Your task to perform on an android device: turn on data saver in the chrome app Image 0: 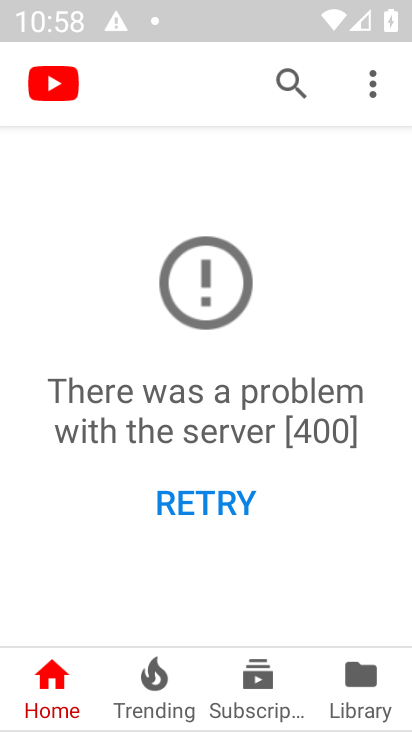
Step 0: press home button
Your task to perform on an android device: turn on data saver in the chrome app Image 1: 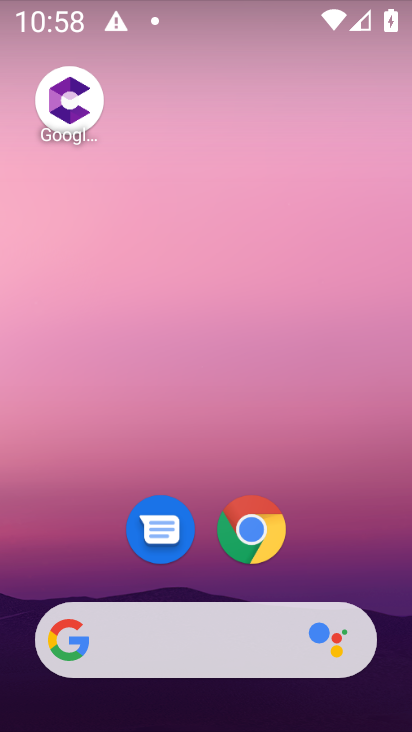
Step 1: drag from (386, 620) to (293, 102)
Your task to perform on an android device: turn on data saver in the chrome app Image 2: 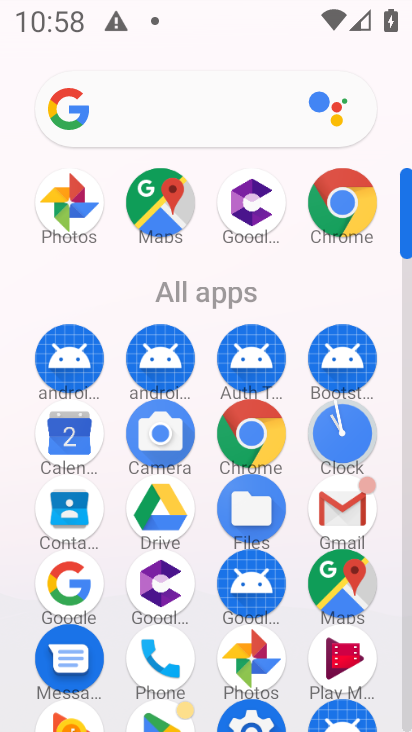
Step 2: click (357, 188)
Your task to perform on an android device: turn on data saver in the chrome app Image 3: 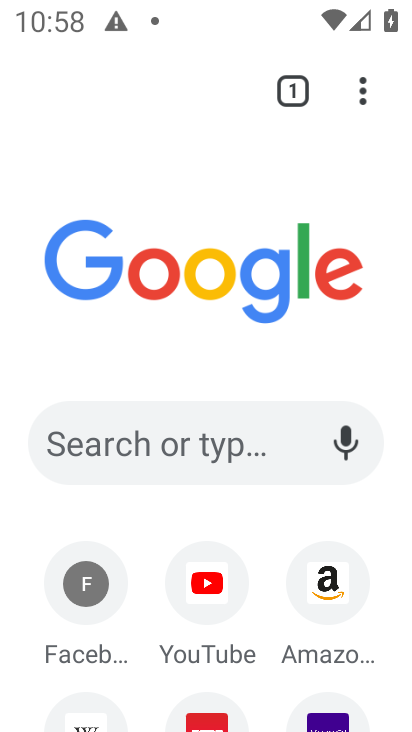
Step 3: click (359, 88)
Your task to perform on an android device: turn on data saver in the chrome app Image 4: 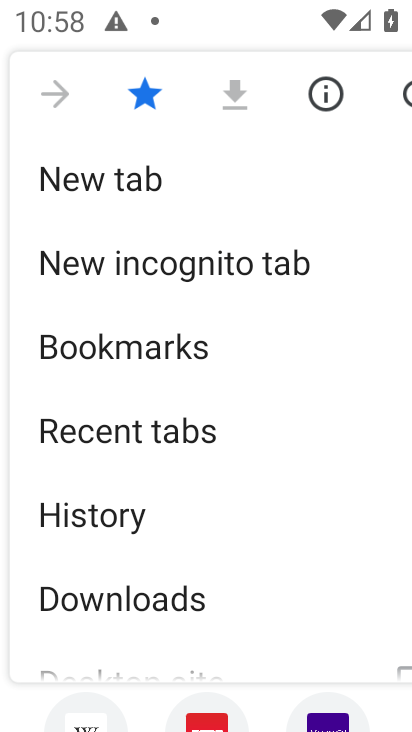
Step 4: drag from (187, 629) to (197, 176)
Your task to perform on an android device: turn on data saver in the chrome app Image 5: 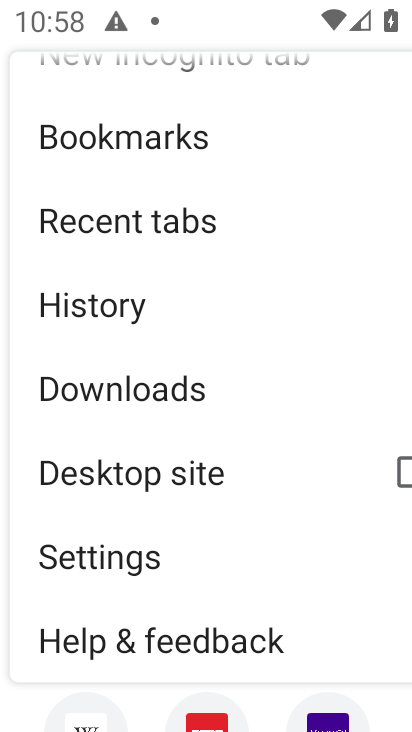
Step 5: click (176, 558)
Your task to perform on an android device: turn on data saver in the chrome app Image 6: 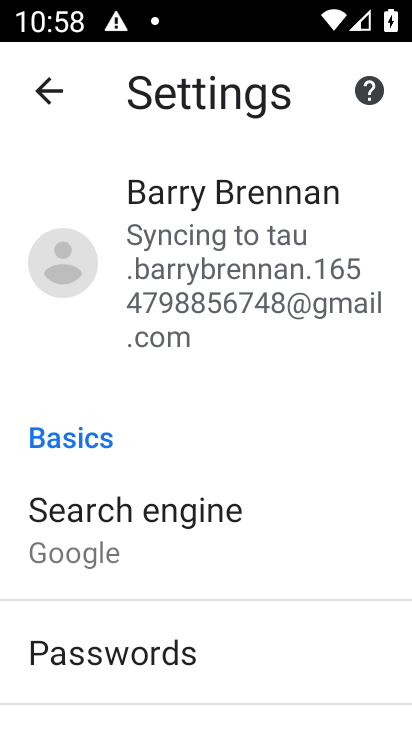
Step 6: drag from (227, 590) to (189, 43)
Your task to perform on an android device: turn on data saver in the chrome app Image 7: 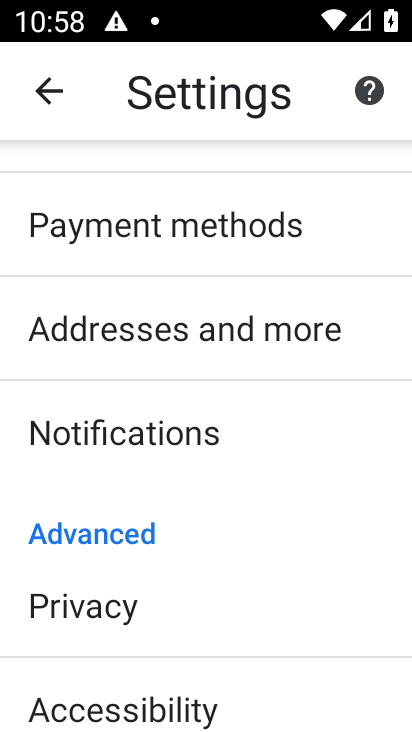
Step 7: drag from (241, 680) to (234, 208)
Your task to perform on an android device: turn on data saver in the chrome app Image 8: 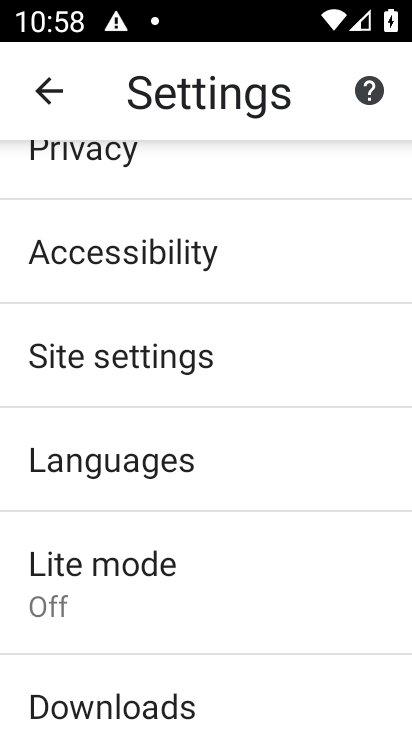
Step 8: click (226, 581)
Your task to perform on an android device: turn on data saver in the chrome app Image 9: 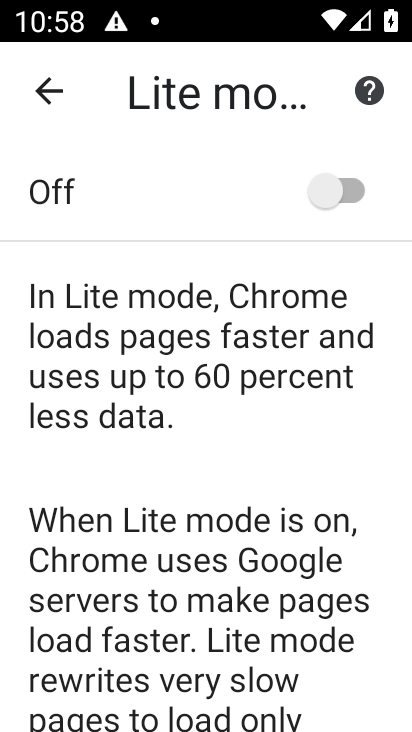
Step 9: click (348, 177)
Your task to perform on an android device: turn on data saver in the chrome app Image 10: 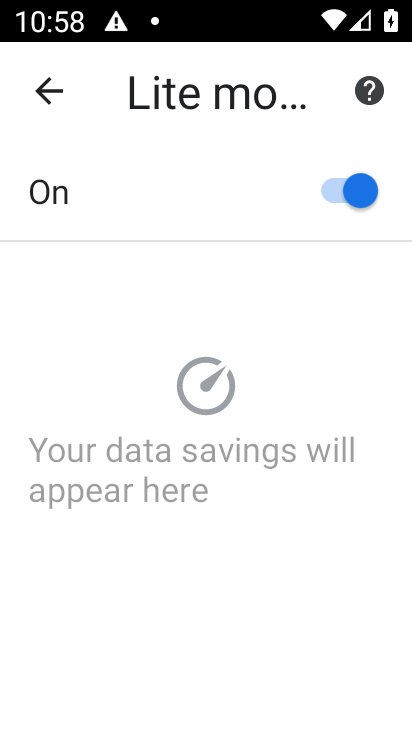
Step 10: task complete